Your task to perform on an android device: Search for sushi restaurants on Maps Image 0: 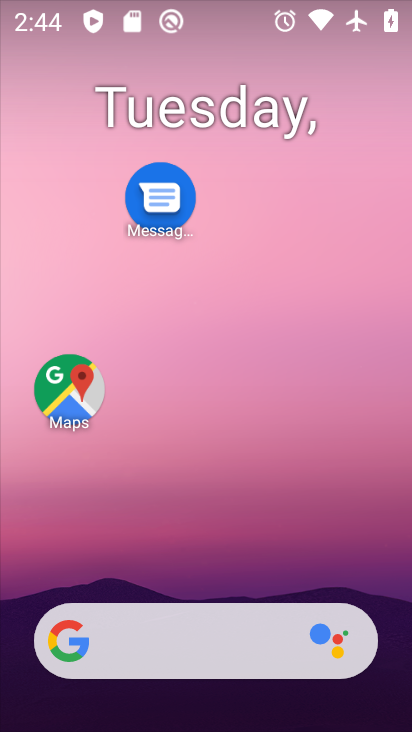
Step 0: click (87, 405)
Your task to perform on an android device: Search for sushi restaurants on Maps Image 1: 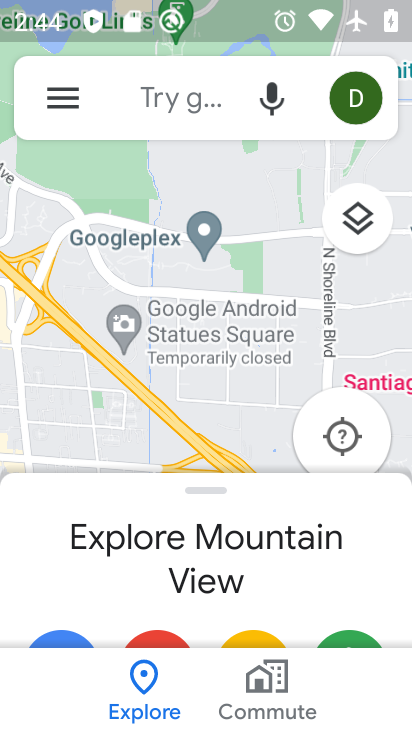
Step 1: click (199, 102)
Your task to perform on an android device: Search for sushi restaurants on Maps Image 2: 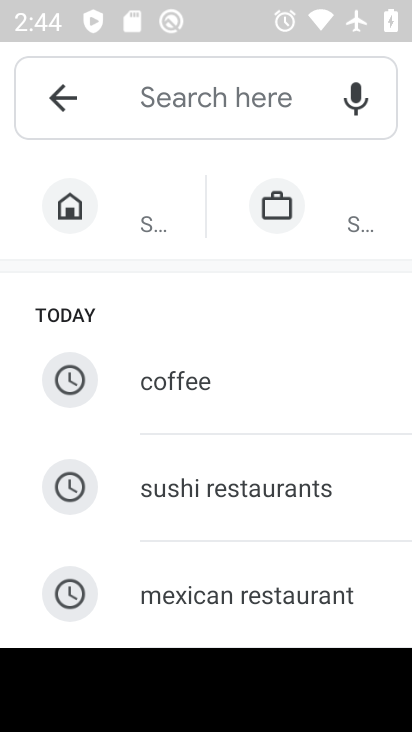
Step 2: click (224, 477)
Your task to perform on an android device: Search for sushi restaurants on Maps Image 3: 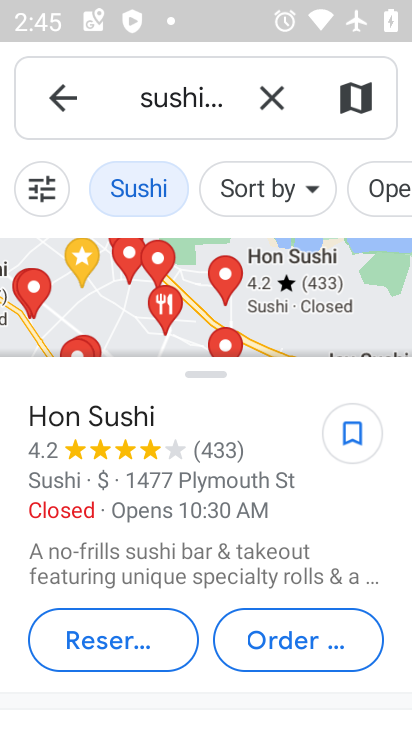
Step 3: task complete